Your task to perform on an android device: Play the last video I watched on Youtube Image 0: 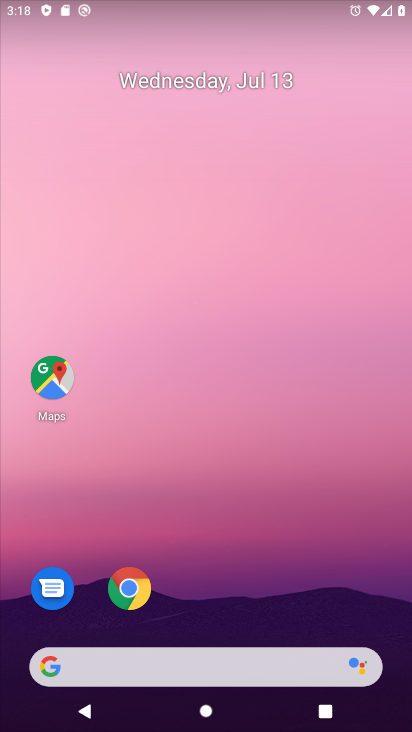
Step 0: drag from (254, 633) to (180, 101)
Your task to perform on an android device: Play the last video I watched on Youtube Image 1: 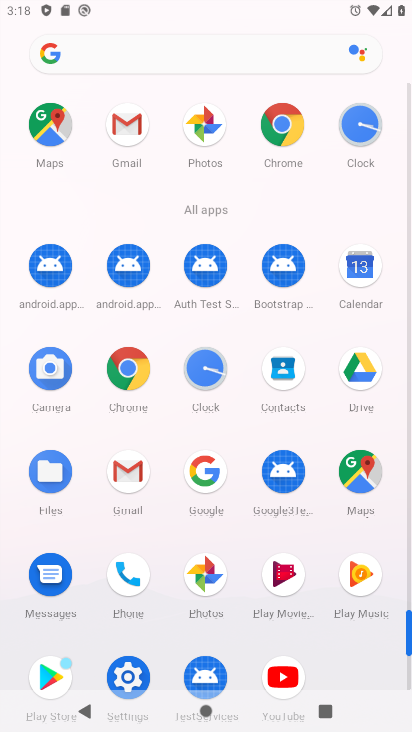
Step 1: click (282, 671)
Your task to perform on an android device: Play the last video I watched on Youtube Image 2: 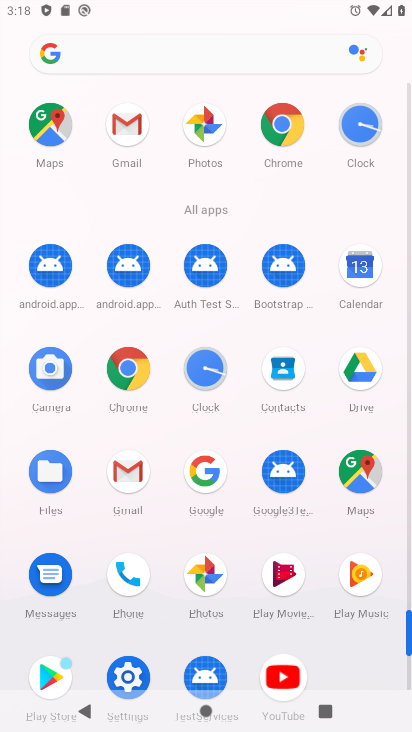
Step 2: click (286, 665)
Your task to perform on an android device: Play the last video I watched on Youtube Image 3: 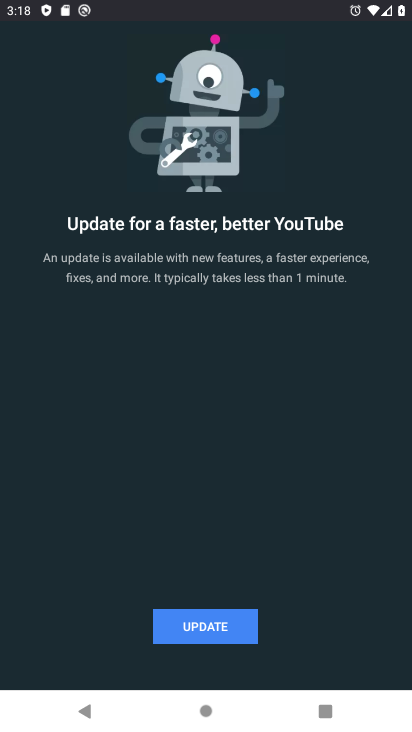
Step 3: click (215, 625)
Your task to perform on an android device: Play the last video I watched on Youtube Image 4: 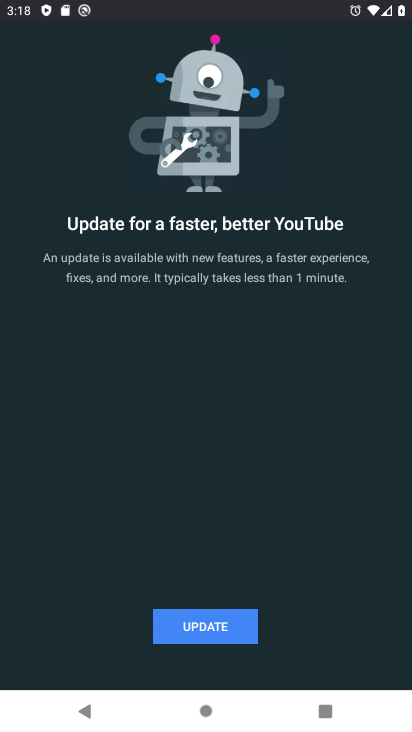
Step 4: click (214, 624)
Your task to perform on an android device: Play the last video I watched on Youtube Image 5: 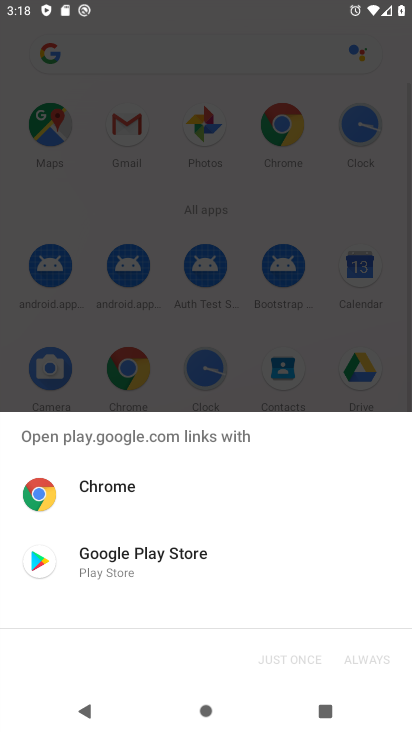
Step 5: click (95, 479)
Your task to perform on an android device: Play the last video I watched on Youtube Image 6: 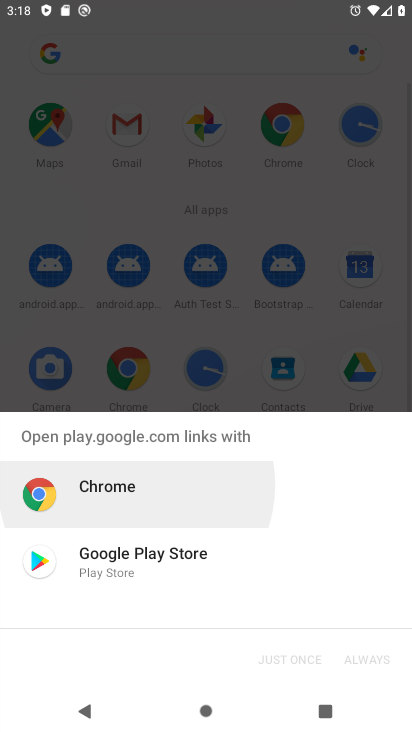
Step 6: click (95, 479)
Your task to perform on an android device: Play the last video I watched on Youtube Image 7: 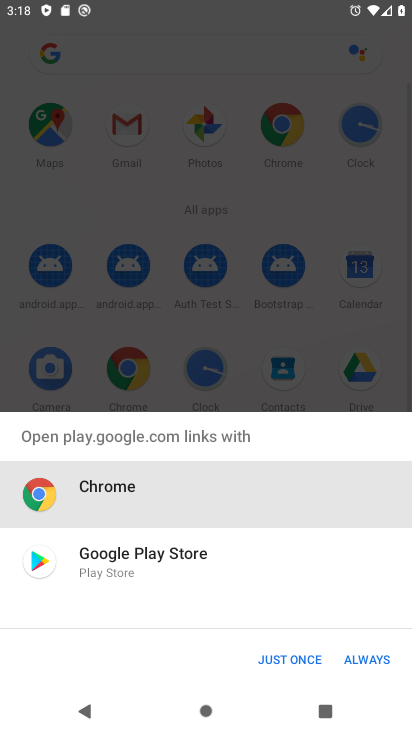
Step 7: click (95, 479)
Your task to perform on an android device: Play the last video I watched on Youtube Image 8: 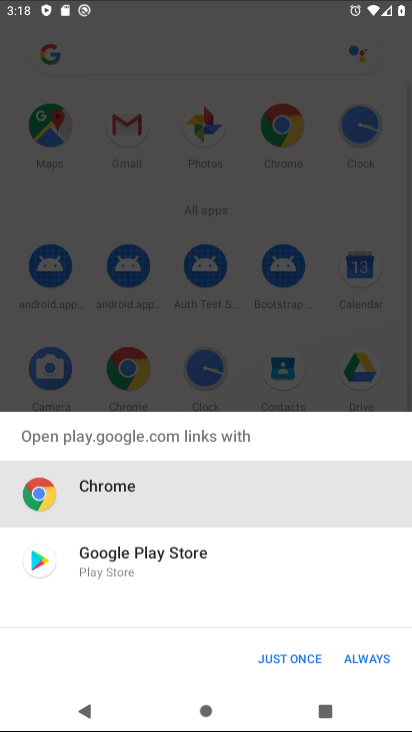
Step 8: click (95, 479)
Your task to perform on an android device: Play the last video I watched on Youtube Image 9: 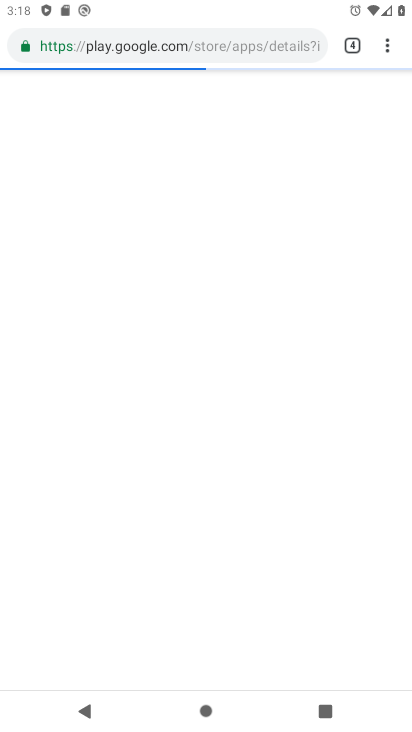
Step 9: click (95, 479)
Your task to perform on an android device: Play the last video I watched on Youtube Image 10: 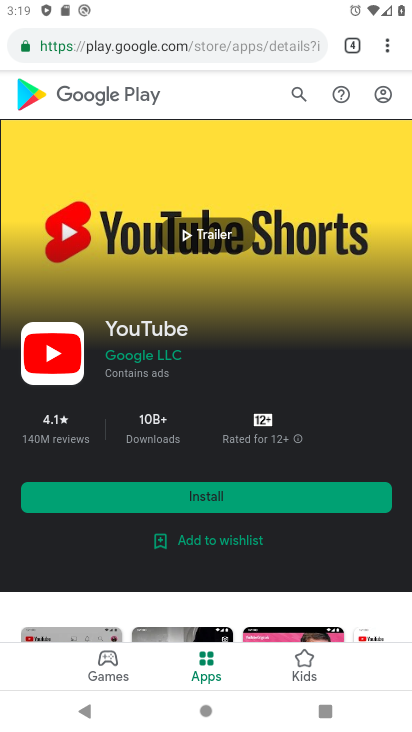
Step 10: press back button
Your task to perform on an android device: Play the last video I watched on Youtube Image 11: 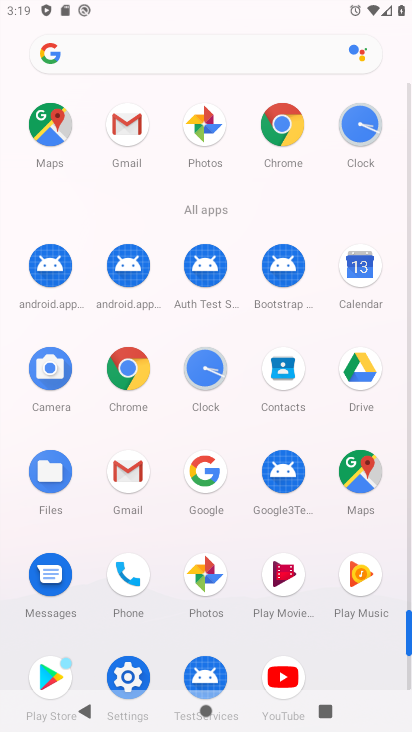
Step 11: drag from (363, 347) to (362, 187)
Your task to perform on an android device: Play the last video I watched on Youtube Image 12: 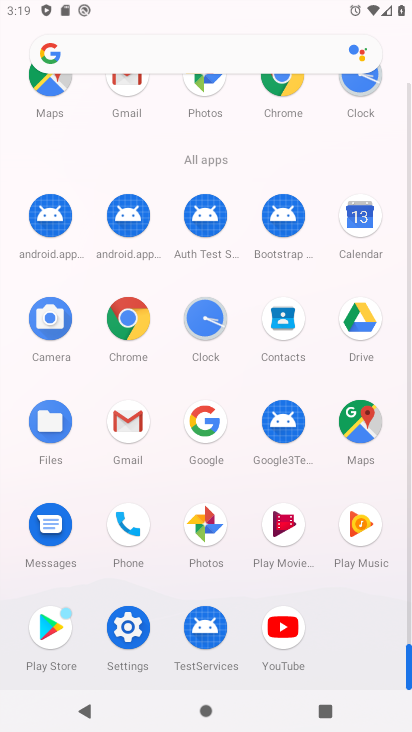
Step 12: click (270, 626)
Your task to perform on an android device: Play the last video I watched on Youtube Image 13: 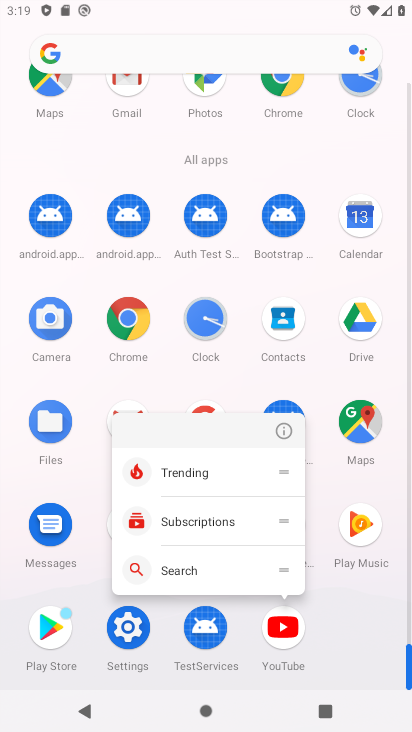
Step 13: click (295, 638)
Your task to perform on an android device: Play the last video I watched on Youtube Image 14: 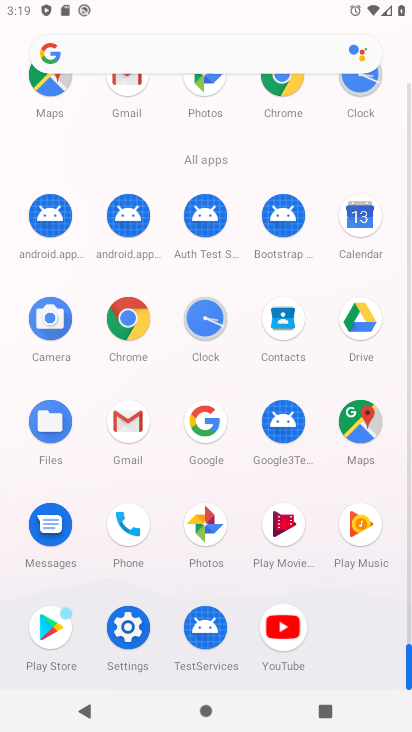
Step 14: click (294, 638)
Your task to perform on an android device: Play the last video I watched on Youtube Image 15: 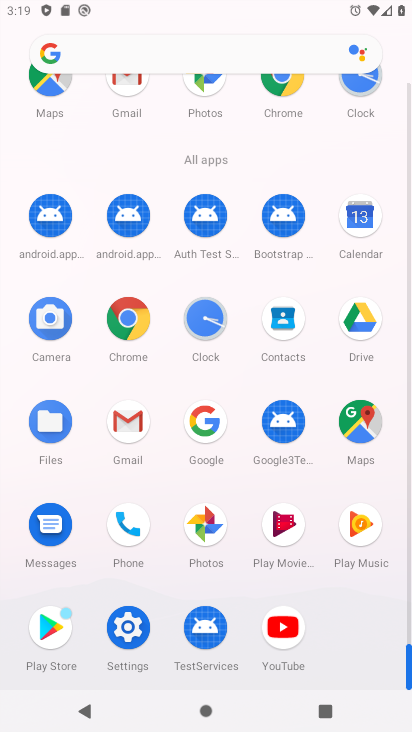
Step 15: click (293, 638)
Your task to perform on an android device: Play the last video I watched on Youtube Image 16: 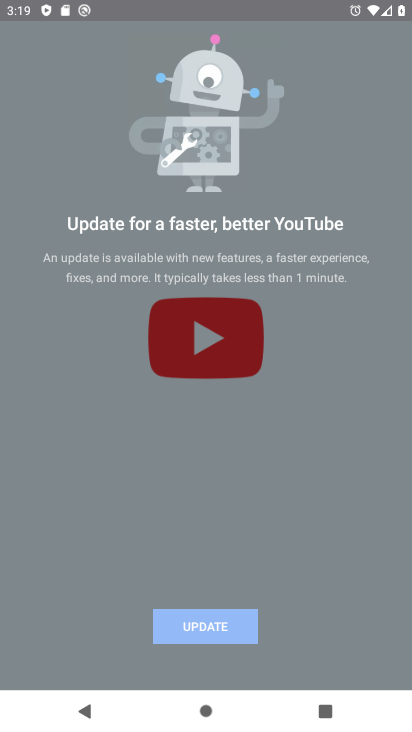
Step 16: click (279, 626)
Your task to perform on an android device: Play the last video I watched on Youtube Image 17: 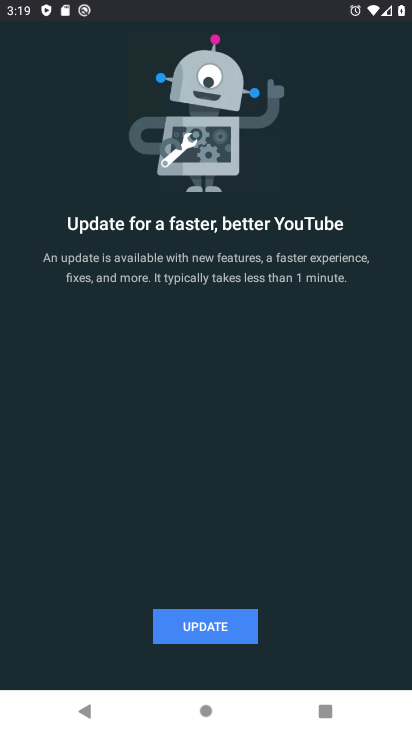
Step 17: click (211, 623)
Your task to perform on an android device: Play the last video I watched on Youtube Image 18: 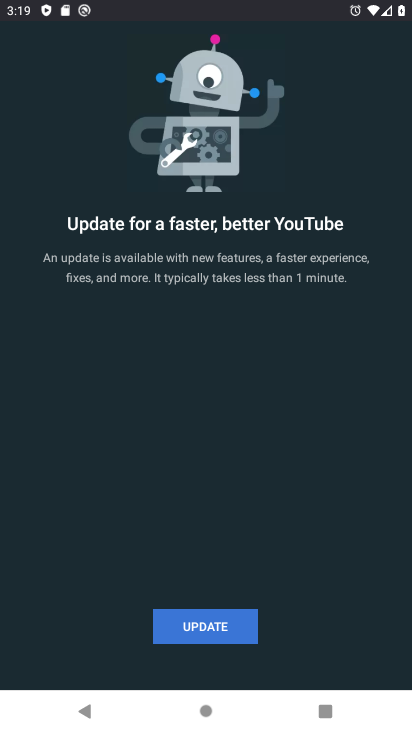
Step 18: click (210, 623)
Your task to perform on an android device: Play the last video I watched on Youtube Image 19: 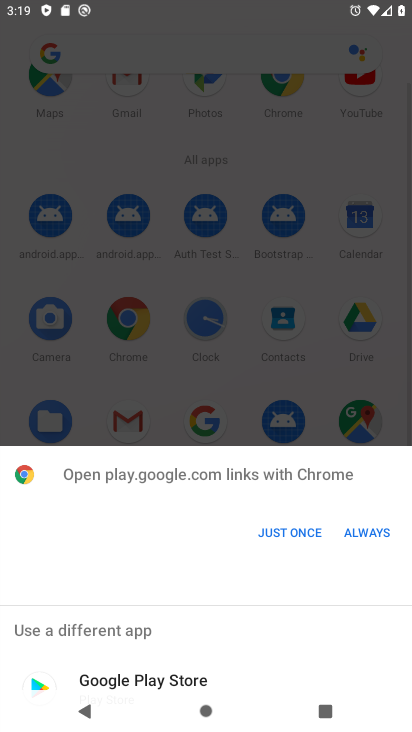
Step 19: click (374, 533)
Your task to perform on an android device: Play the last video I watched on Youtube Image 20: 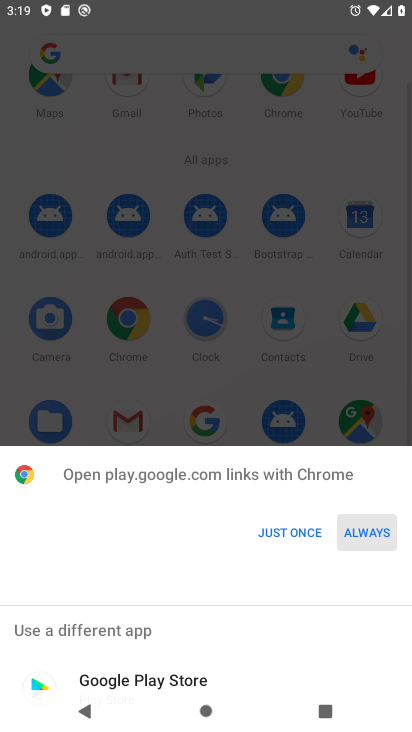
Step 20: click (374, 533)
Your task to perform on an android device: Play the last video I watched on Youtube Image 21: 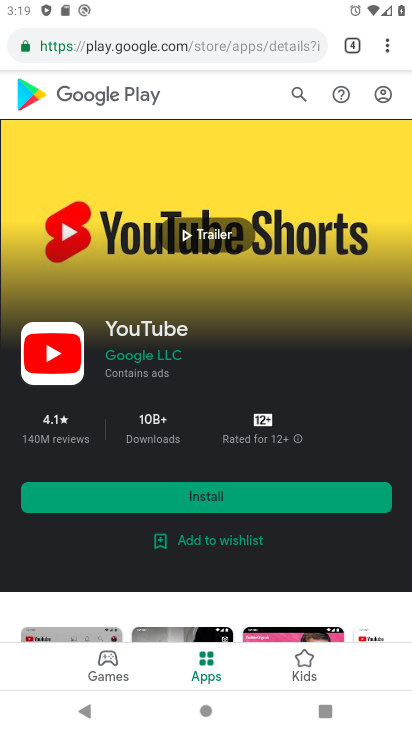
Step 21: task complete